Your task to perform on an android device: Do I have any events tomorrow? Image 0: 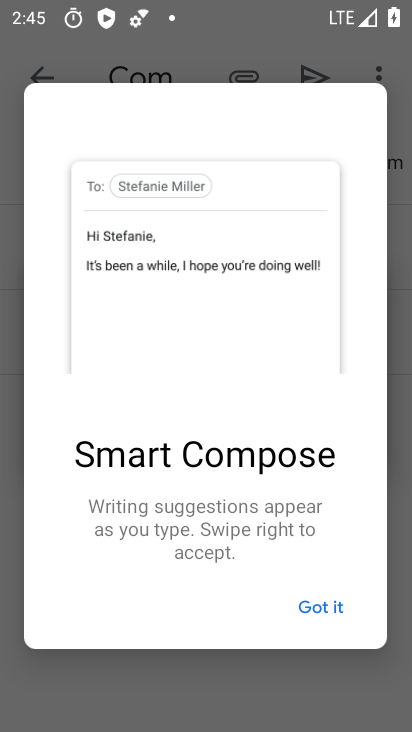
Step 0: press home button
Your task to perform on an android device: Do I have any events tomorrow? Image 1: 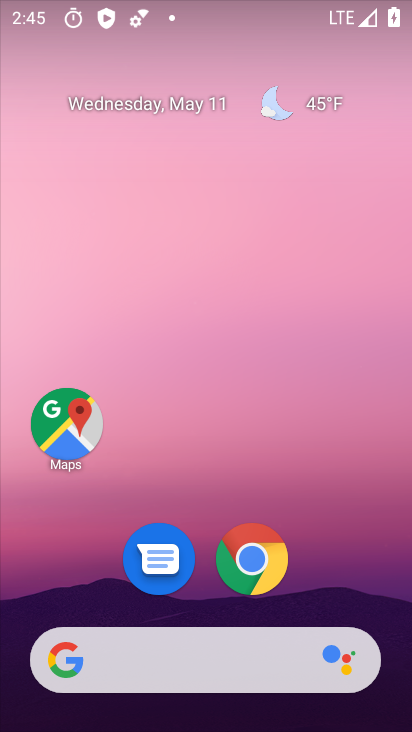
Step 1: click (134, 105)
Your task to perform on an android device: Do I have any events tomorrow? Image 2: 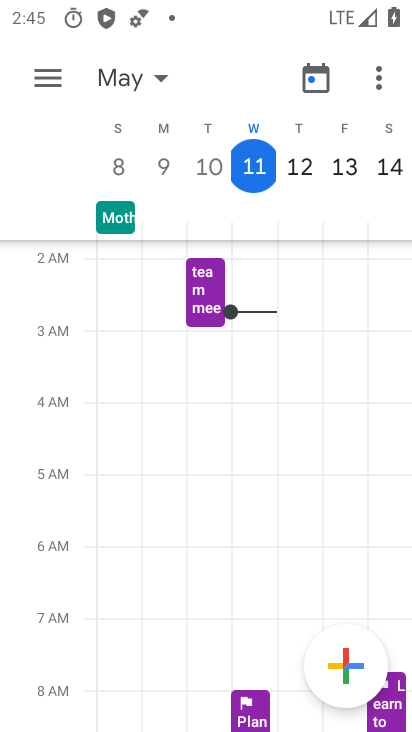
Step 2: task complete